Your task to perform on an android device: Search for vegetarian restaurants on Maps Image 0: 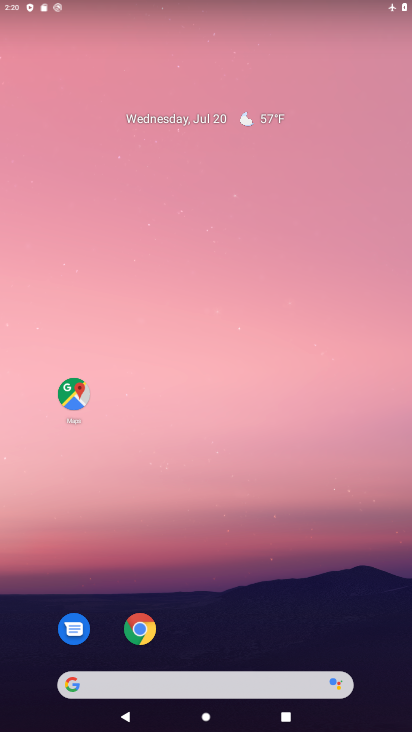
Step 0: click (77, 401)
Your task to perform on an android device: Search for vegetarian restaurants on Maps Image 1: 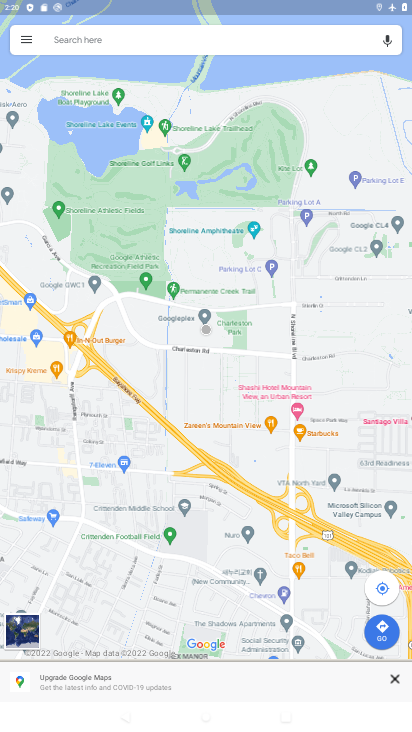
Step 1: click (182, 35)
Your task to perform on an android device: Search for vegetarian restaurants on Maps Image 2: 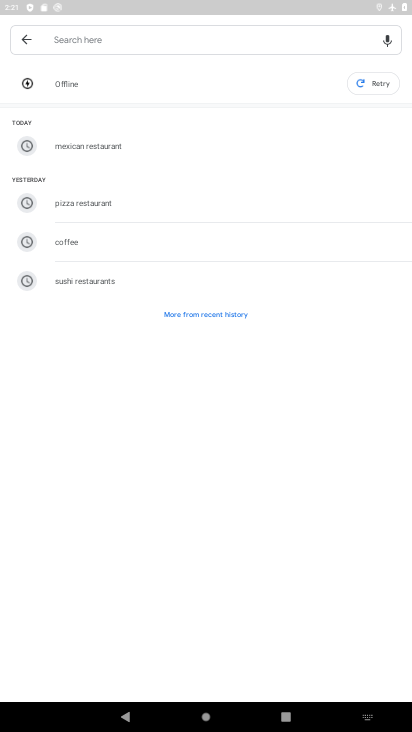
Step 2: type "vegetarian restaurants"
Your task to perform on an android device: Search for vegetarian restaurants on Maps Image 3: 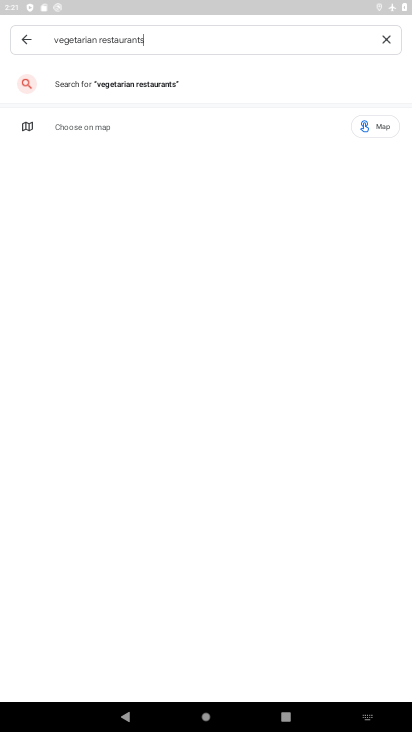
Step 3: click (104, 91)
Your task to perform on an android device: Search for vegetarian restaurants on Maps Image 4: 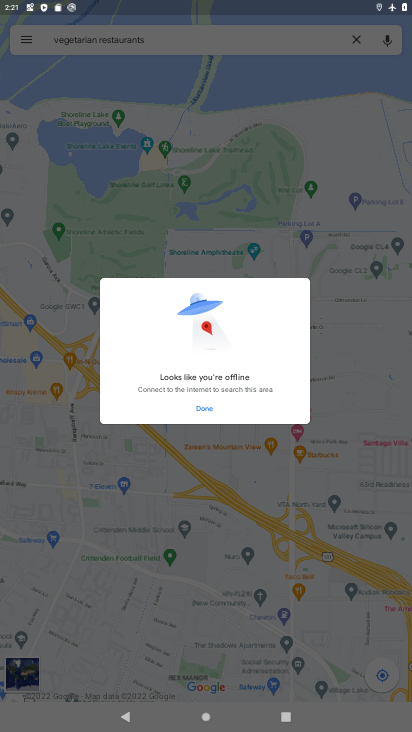
Step 4: task complete